Your task to perform on an android device: open chrome privacy settings Image 0: 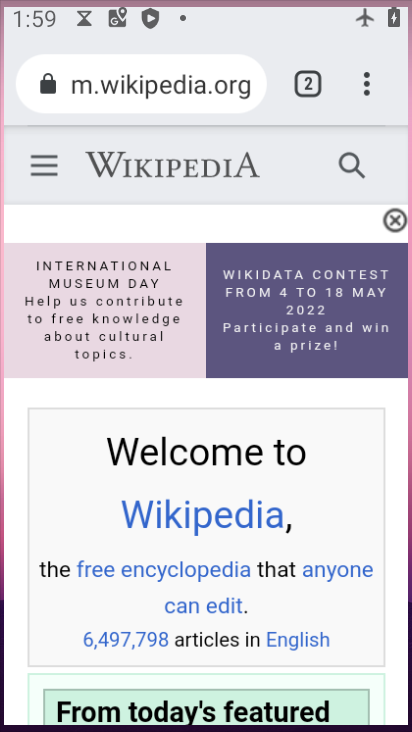
Step 0: drag from (311, 589) to (327, 88)
Your task to perform on an android device: open chrome privacy settings Image 1: 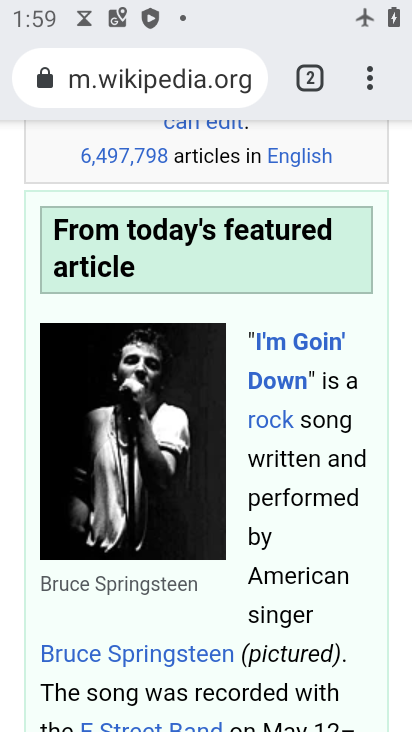
Step 1: press home button
Your task to perform on an android device: open chrome privacy settings Image 2: 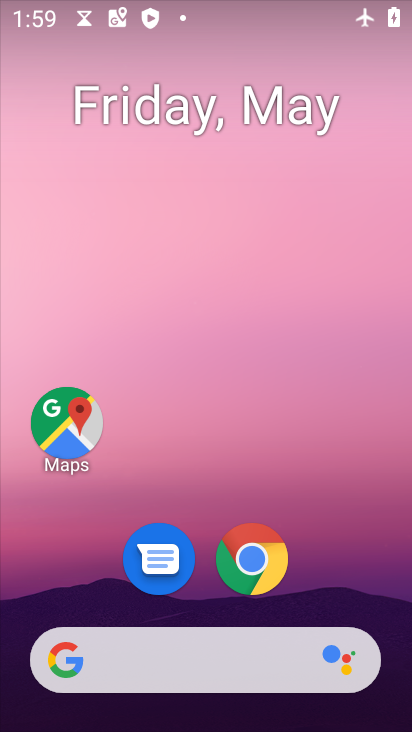
Step 2: drag from (339, 569) to (313, 85)
Your task to perform on an android device: open chrome privacy settings Image 3: 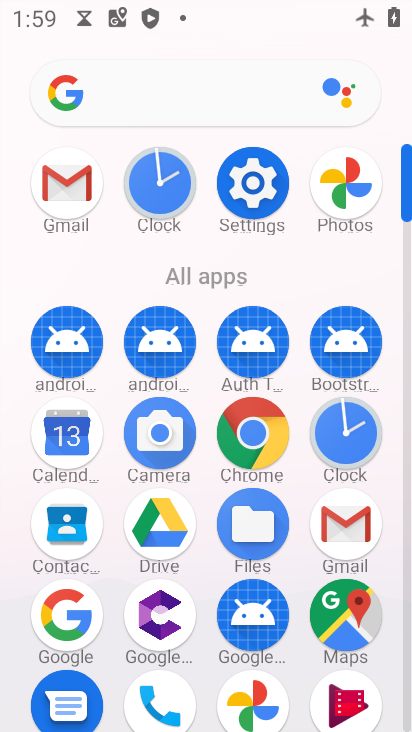
Step 3: click (236, 435)
Your task to perform on an android device: open chrome privacy settings Image 4: 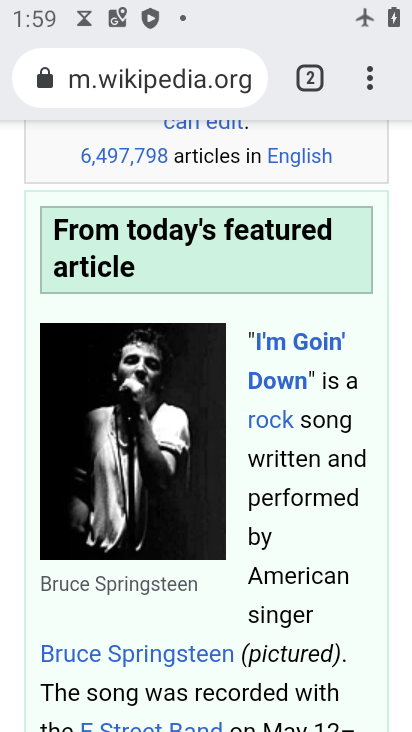
Step 4: drag from (364, 83) to (216, 629)
Your task to perform on an android device: open chrome privacy settings Image 5: 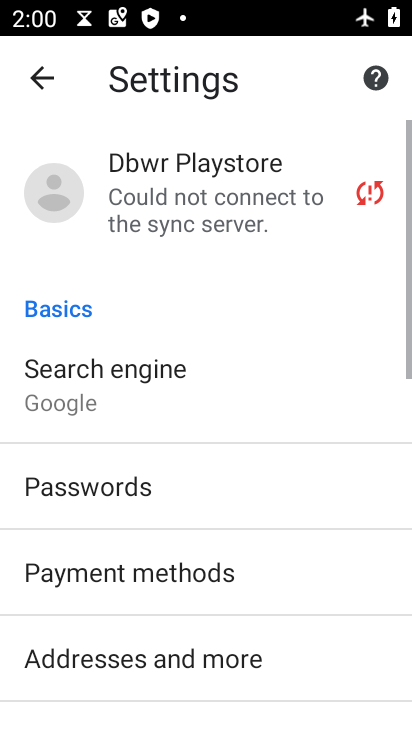
Step 5: drag from (255, 599) to (290, 210)
Your task to perform on an android device: open chrome privacy settings Image 6: 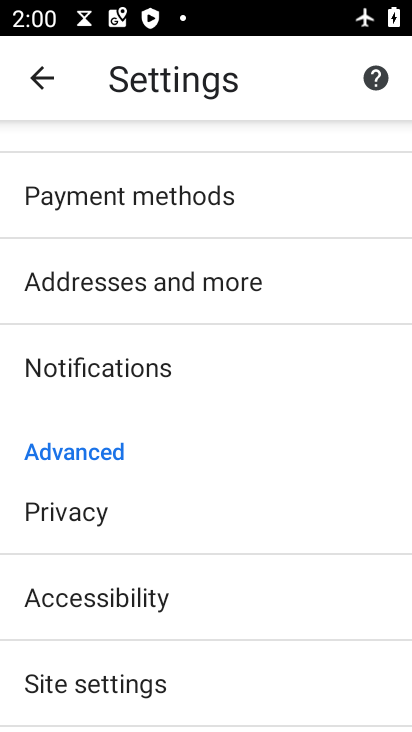
Step 6: click (170, 522)
Your task to perform on an android device: open chrome privacy settings Image 7: 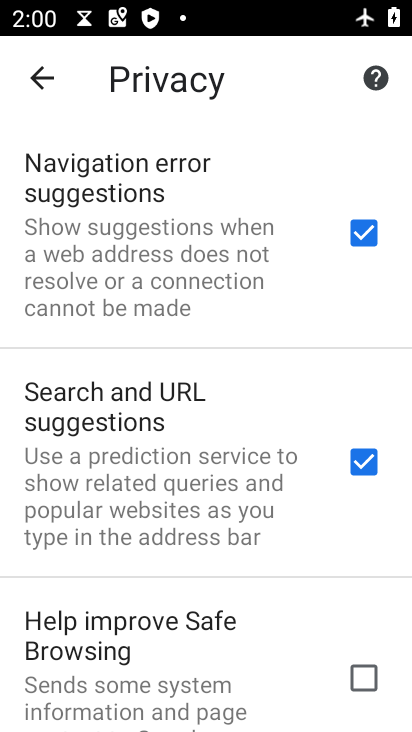
Step 7: task complete